Your task to perform on an android device: delete location history Image 0: 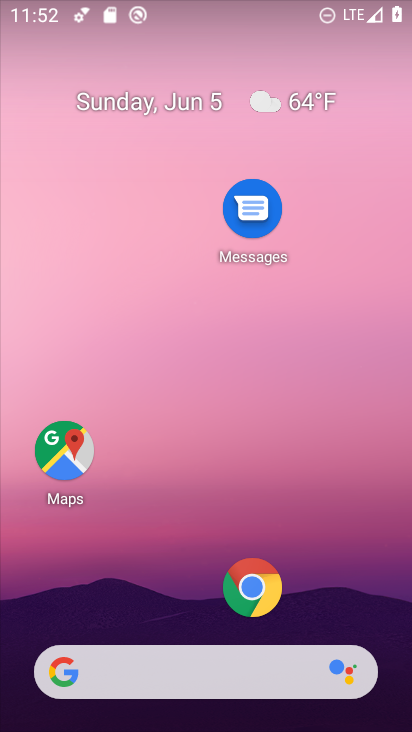
Step 0: click (67, 481)
Your task to perform on an android device: delete location history Image 1: 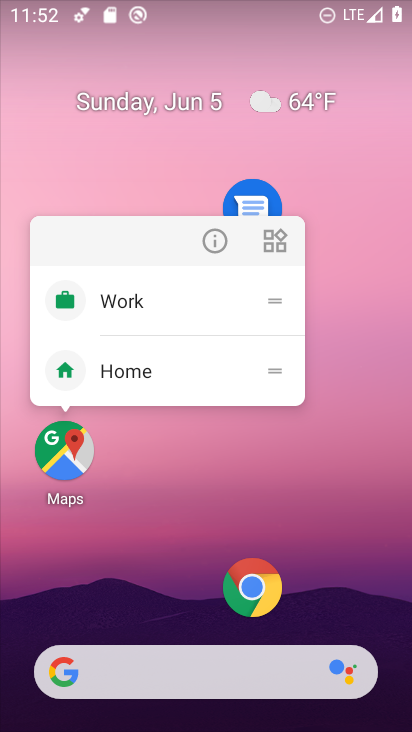
Step 1: click (154, 382)
Your task to perform on an android device: delete location history Image 2: 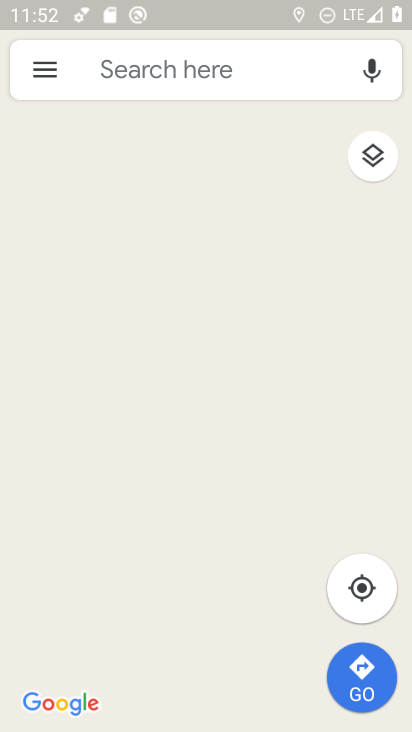
Step 2: click (48, 79)
Your task to perform on an android device: delete location history Image 3: 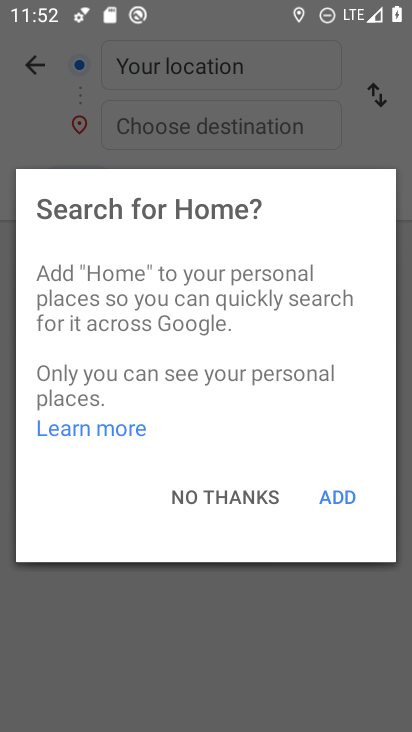
Step 3: click (175, 507)
Your task to perform on an android device: delete location history Image 4: 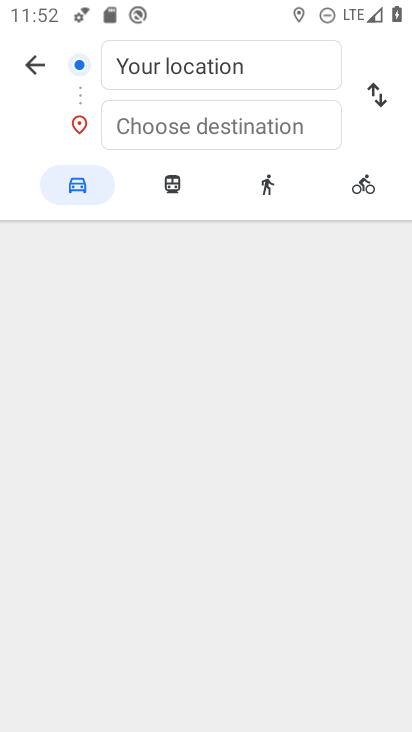
Step 4: click (41, 64)
Your task to perform on an android device: delete location history Image 5: 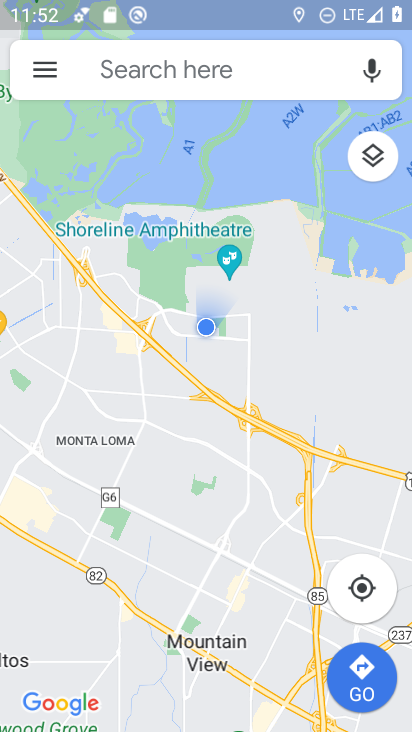
Step 5: click (41, 64)
Your task to perform on an android device: delete location history Image 6: 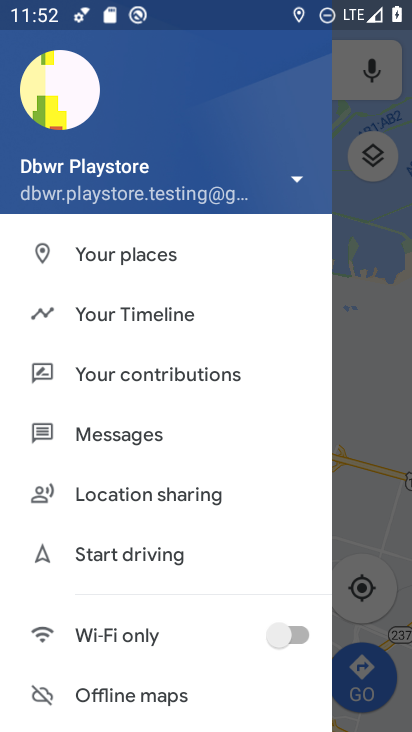
Step 6: drag from (81, 696) to (145, 165)
Your task to perform on an android device: delete location history Image 7: 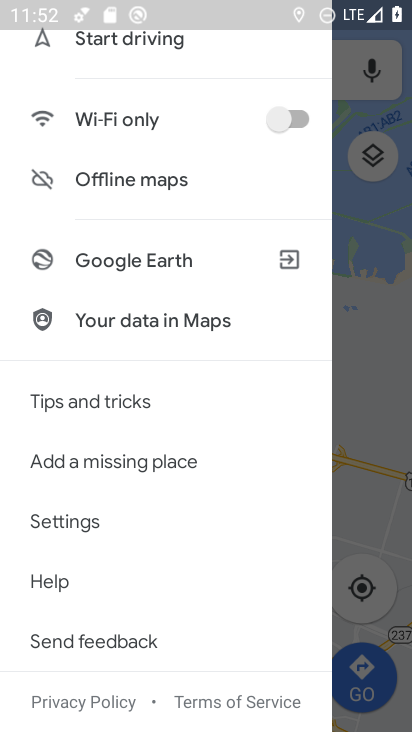
Step 7: click (60, 527)
Your task to perform on an android device: delete location history Image 8: 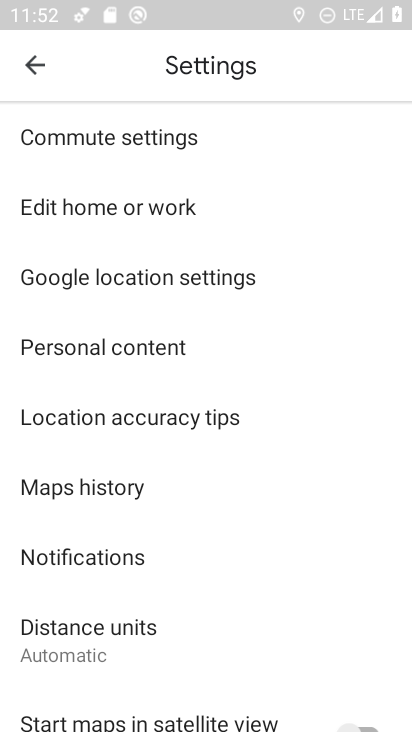
Step 8: drag from (115, 672) to (154, 322)
Your task to perform on an android device: delete location history Image 9: 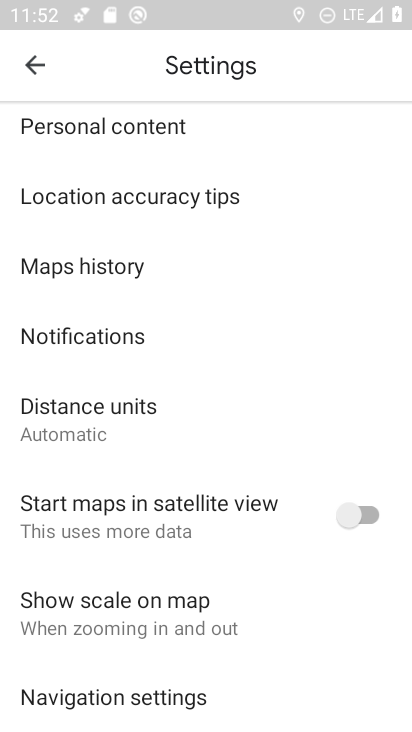
Step 9: drag from (57, 674) to (143, 200)
Your task to perform on an android device: delete location history Image 10: 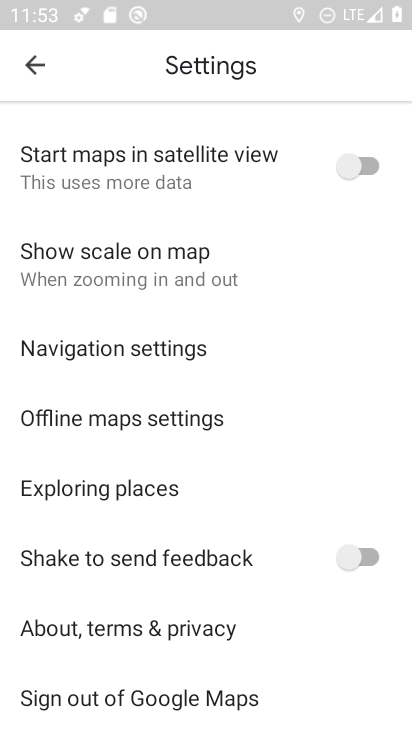
Step 10: drag from (143, 200) to (169, 641)
Your task to perform on an android device: delete location history Image 11: 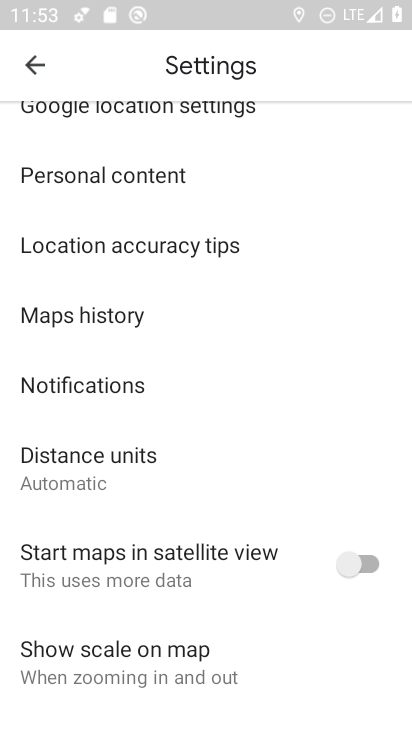
Step 11: click (44, 62)
Your task to perform on an android device: delete location history Image 12: 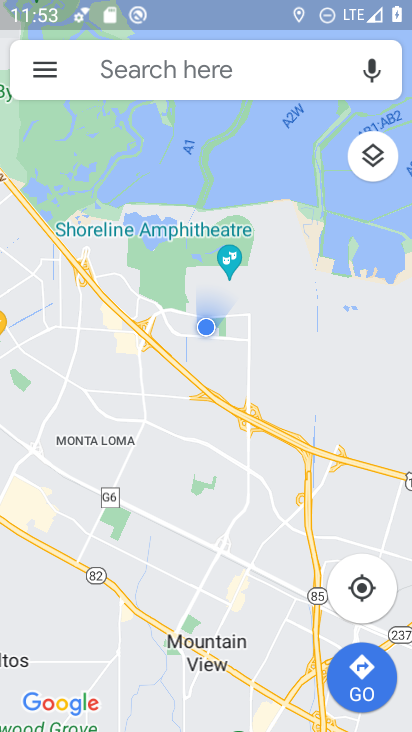
Step 12: click (44, 72)
Your task to perform on an android device: delete location history Image 13: 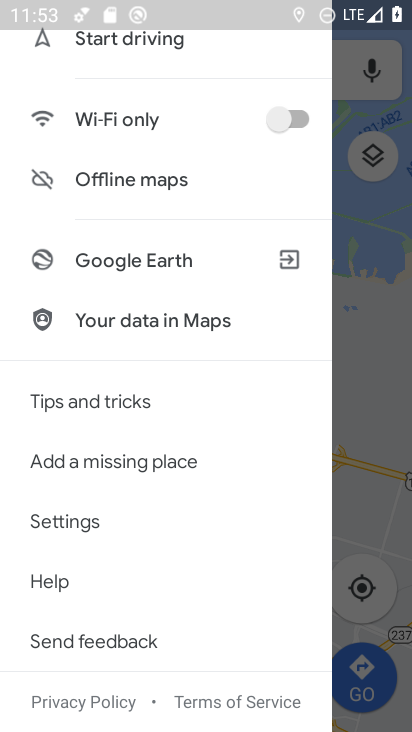
Step 13: drag from (105, 101) to (177, 674)
Your task to perform on an android device: delete location history Image 14: 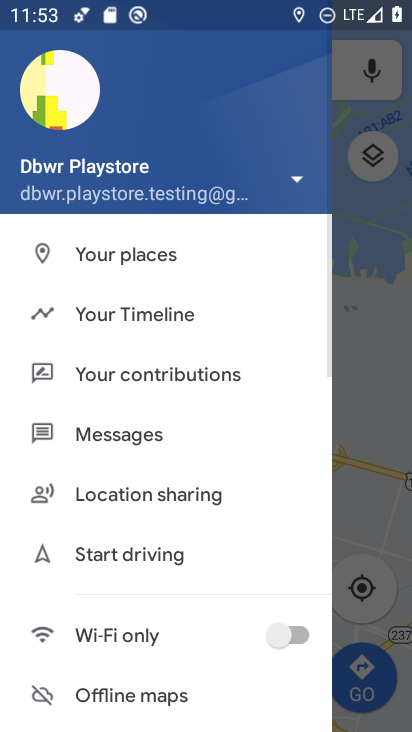
Step 14: click (98, 310)
Your task to perform on an android device: delete location history Image 15: 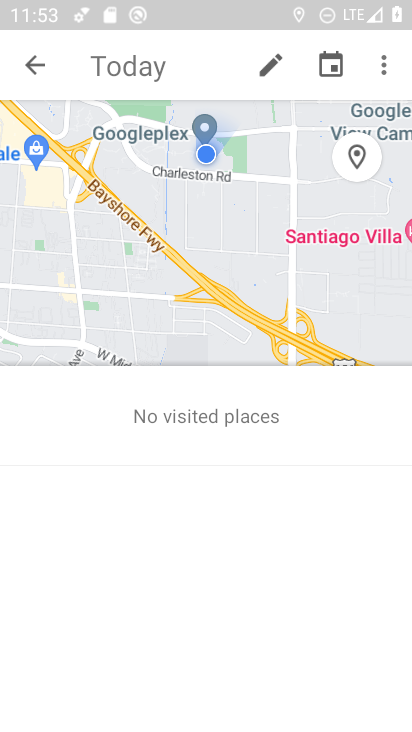
Step 15: click (384, 75)
Your task to perform on an android device: delete location history Image 16: 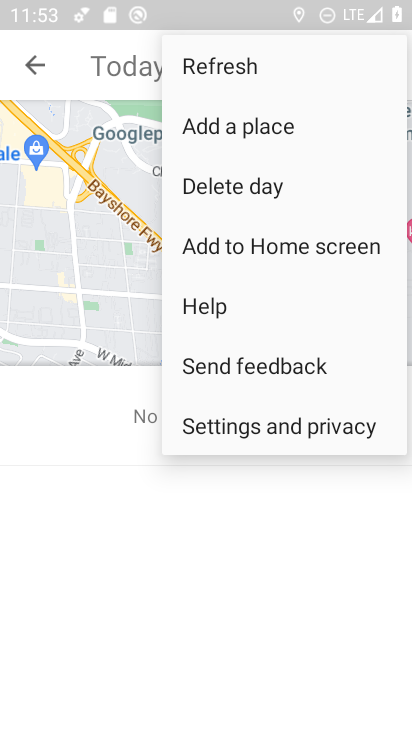
Step 16: click (256, 442)
Your task to perform on an android device: delete location history Image 17: 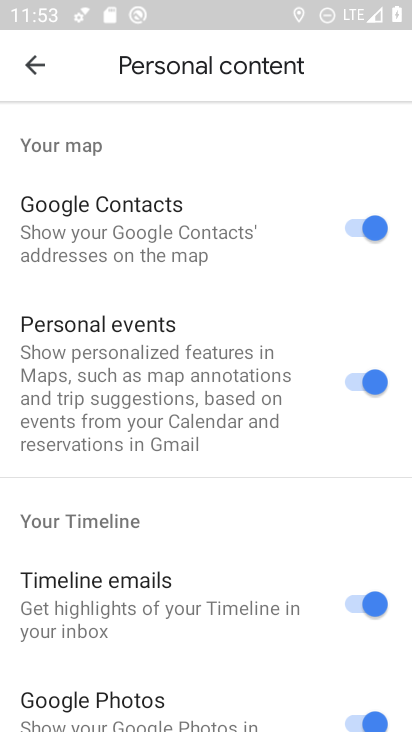
Step 17: drag from (105, 616) to (170, 203)
Your task to perform on an android device: delete location history Image 18: 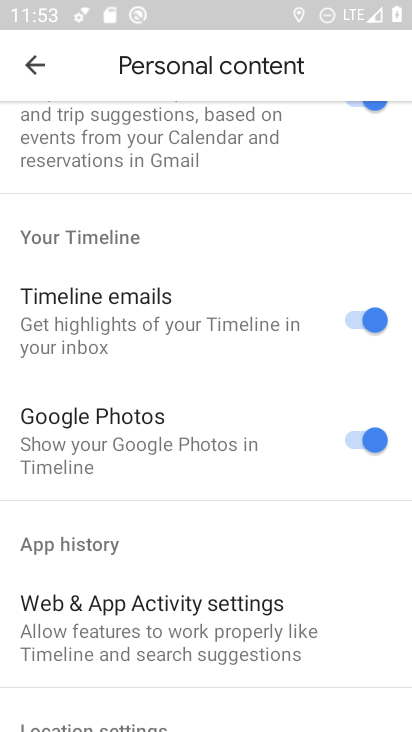
Step 18: drag from (151, 674) to (177, 365)
Your task to perform on an android device: delete location history Image 19: 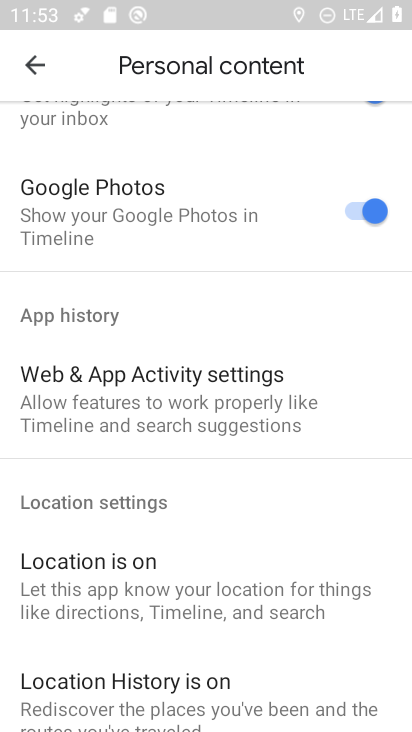
Step 19: drag from (89, 685) to (114, 391)
Your task to perform on an android device: delete location history Image 20: 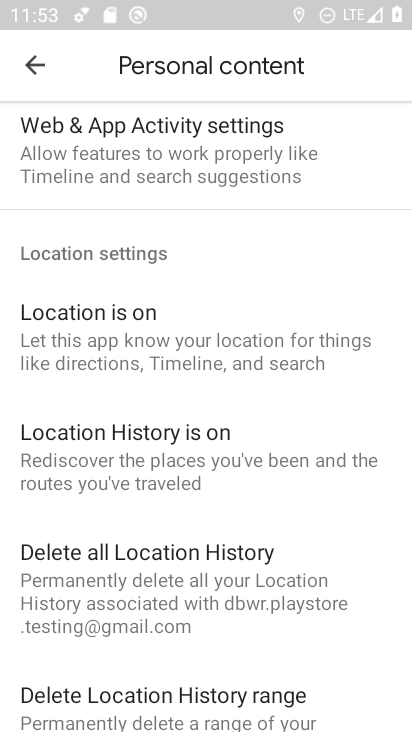
Step 20: click (168, 569)
Your task to perform on an android device: delete location history Image 21: 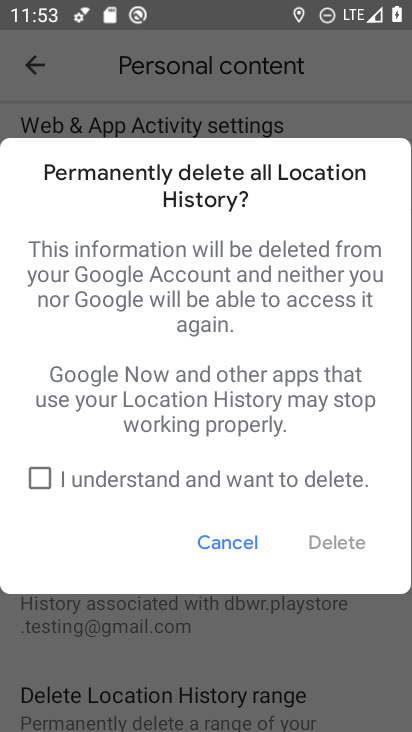
Step 21: click (27, 473)
Your task to perform on an android device: delete location history Image 22: 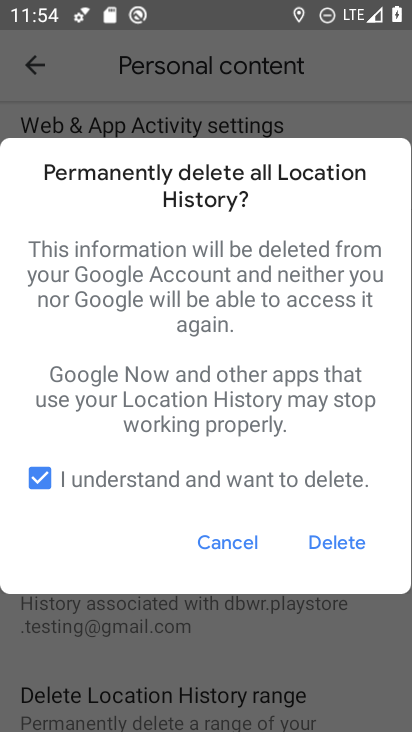
Step 22: click (364, 539)
Your task to perform on an android device: delete location history Image 23: 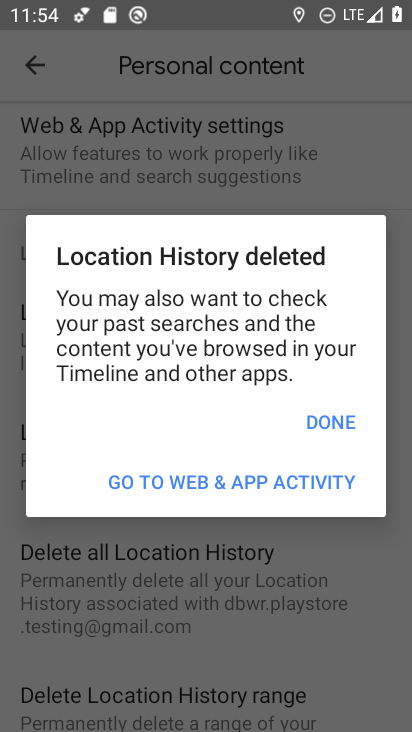
Step 23: click (336, 421)
Your task to perform on an android device: delete location history Image 24: 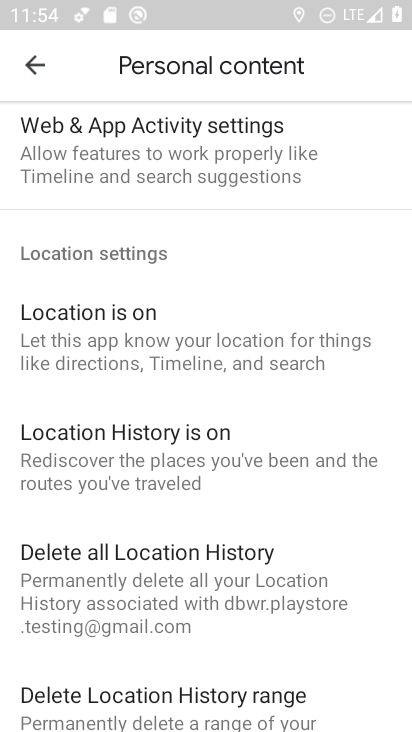
Step 24: task complete